Your task to perform on an android device: move a message to another label in the gmail app Image 0: 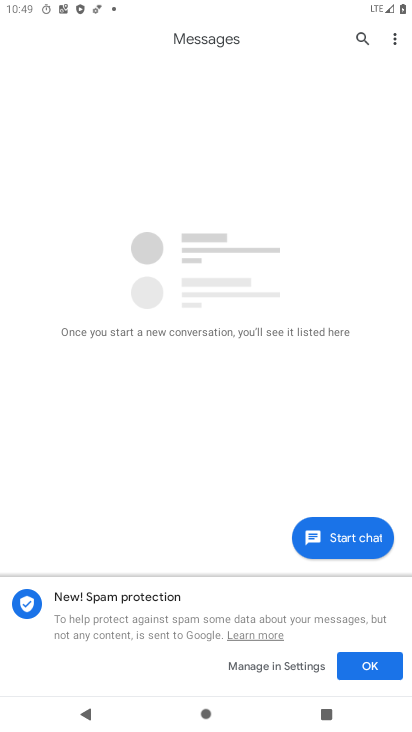
Step 0: press home button
Your task to perform on an android device: move a message to another label in the gmail app Image 1: 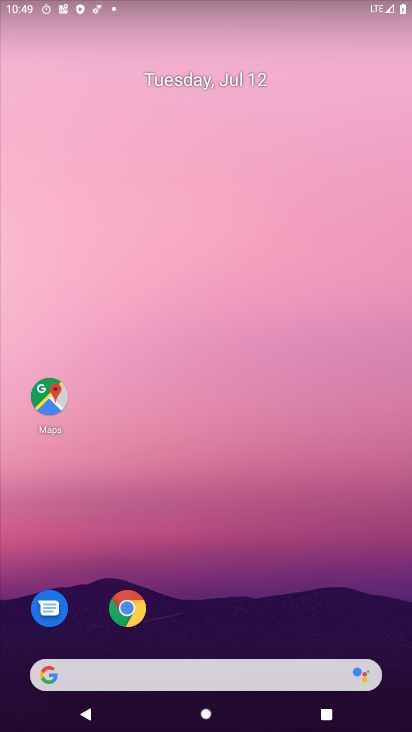
Step 1: drag from (282, 633) to (398, 59)
Your task to perform on an android device: move a message to another label in the gmail app Image 2: 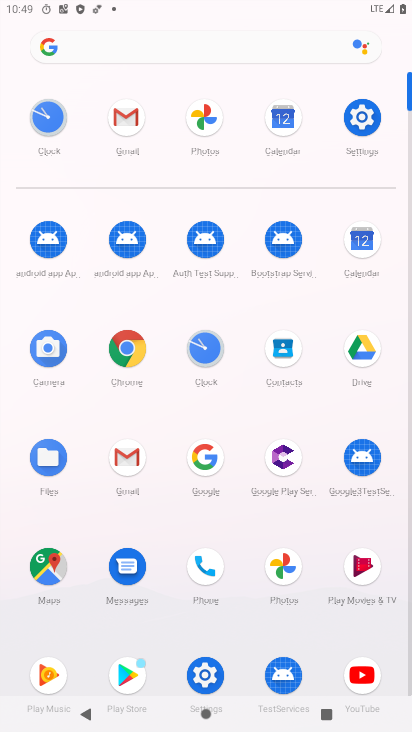
Step 2: click (127, 114)
Your task to perform on an android device: move a message to another label in the gmail app Image 3: 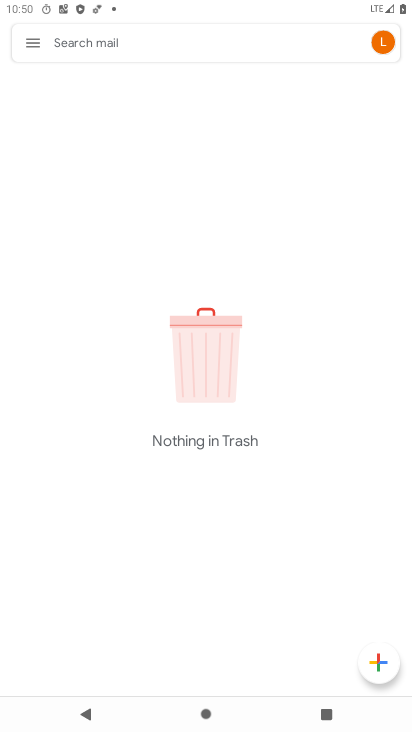
Step 3: click (36, 51)
Your task to perform on an android device: move a message to another label in the gmail app Image 4: 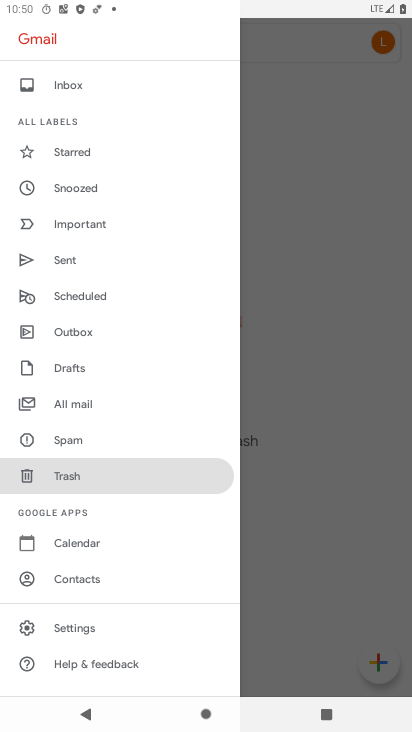
Step 4: click (88, 407)
Your task to perform on an android device: move a message to another label in the gmail app Image 5: 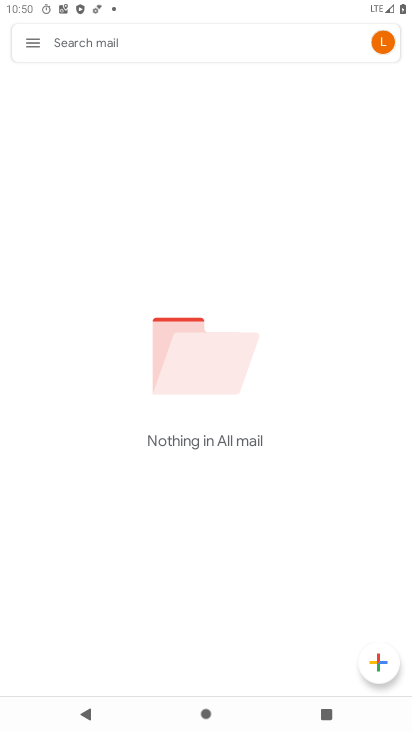
Step 5: task complete